Your task to perform on an android device: toggle javascript in the chrome app Image 0: 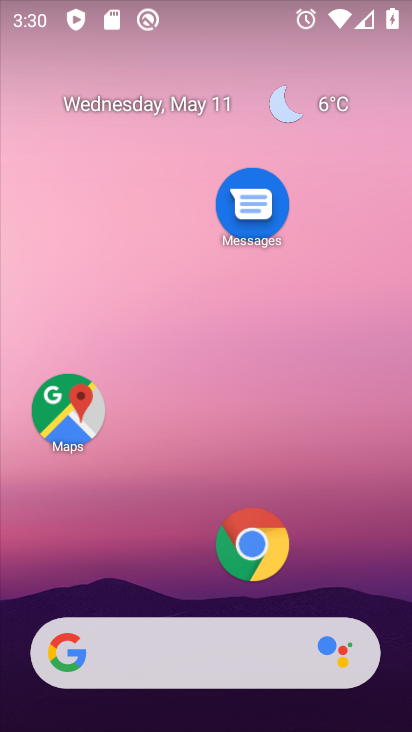
Step 0: click (265, 551)
Your task to perform on an android device: toggle javascript in the chrome app Image 1: 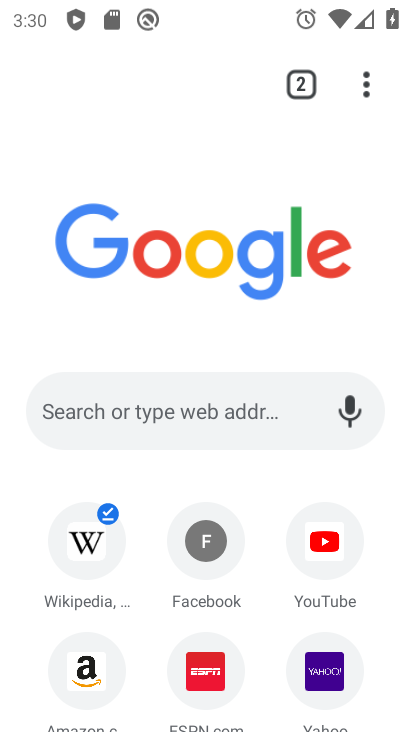
Step 1: click (363, 82)
Your task to perform on an android device: toggle javascript in the chrome app Image 2: 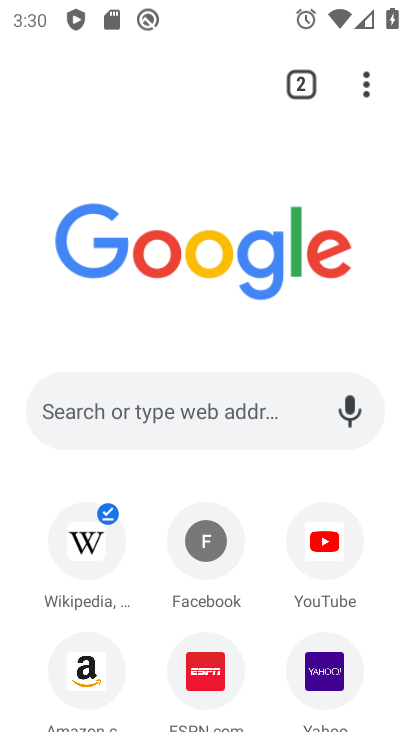
Step 2: drag from (364, 73) to (85, 595)
Your task to perform on an android device: toggle javascript in the chrome app Image 3: 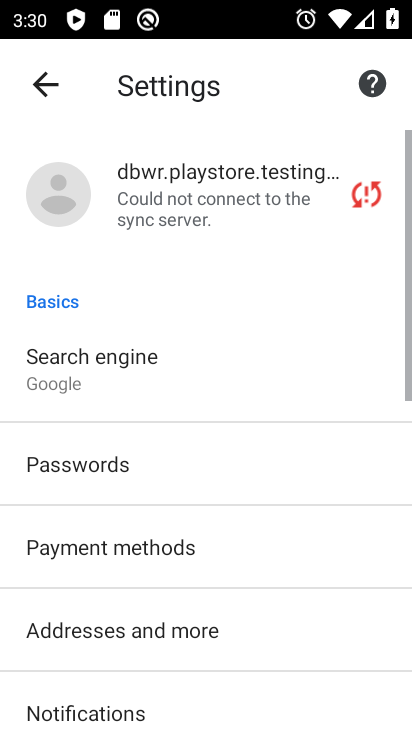
Step 3: drag from (110, 607) to (266, 28)
Your task to perform on an android device: toggle javascript in the chrome app Image 4: 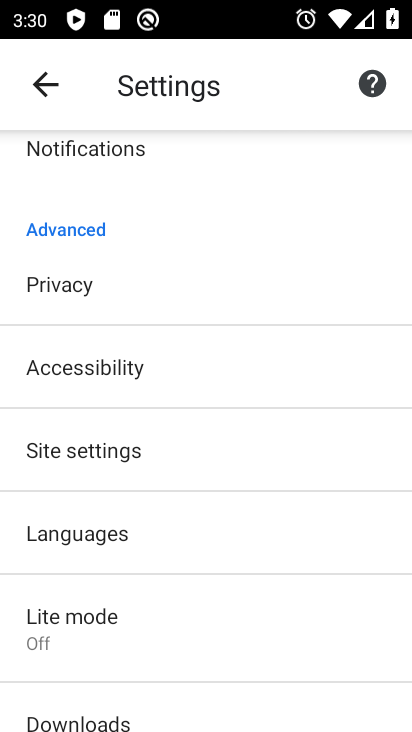
Step 4: click (122, 458)
Your task to perform on an android device: toggle javascript in the chrome app Image 5: 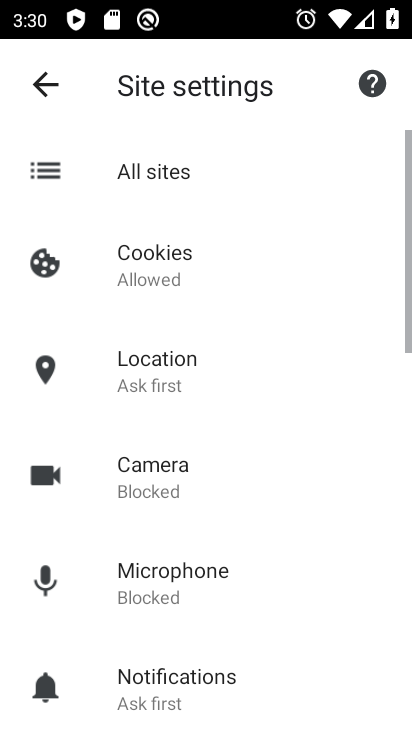
Step 5: drag from (164, 602) to (237, 237)
Your task to perform on an android device: toggle javascript in the chrome app Image 6: 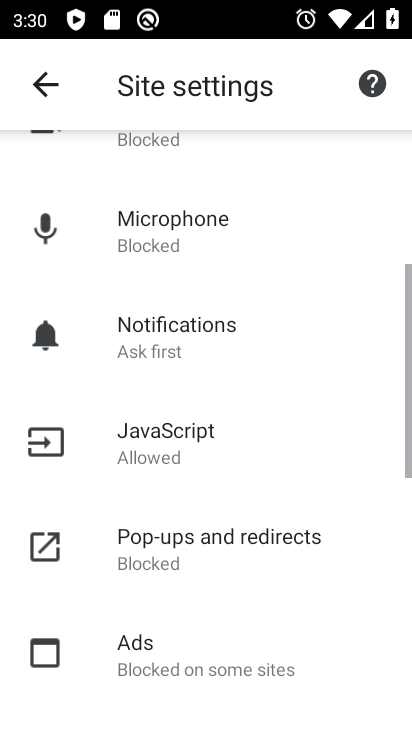
Step 6: click (157, 449)
Your task to perform on an android device: toggle javascript in the chrome app Image 7: 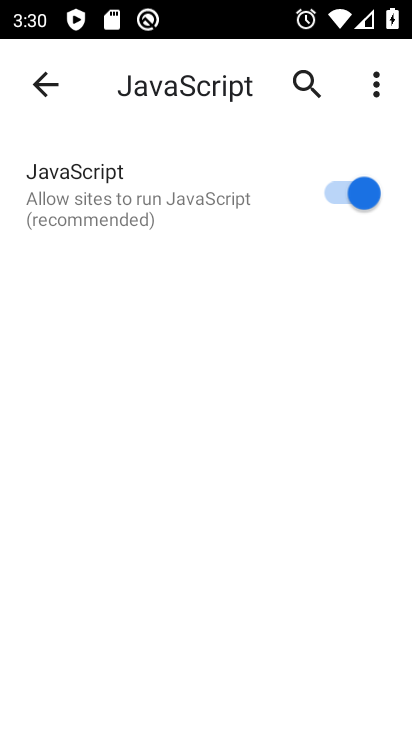
Step 7: click (364, 191)
Your task to perform on an android device: toggle javascript in the chrome app Image 8: 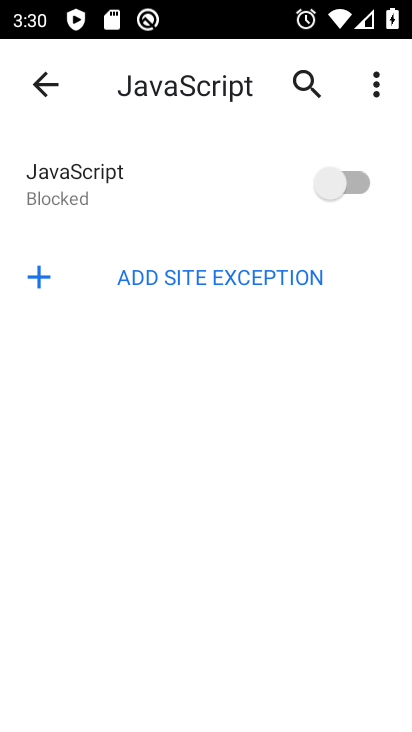
Step 8: task complete